Your task to perform on an android device: Search for "razer naga" on bestbuy, select the first entry, and add it to the cart. Image 0: 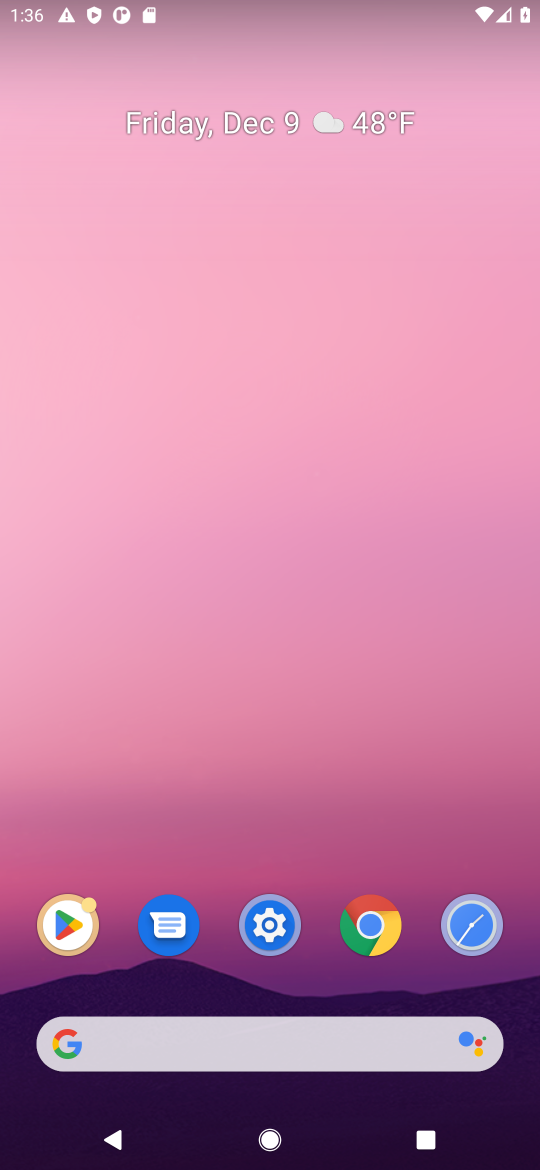
Step 0: click (347, 1030)
Your task to perform on an android device: Search for "razer naga" on bestbuy, select the first entry, and add it to the cart. Image 1: 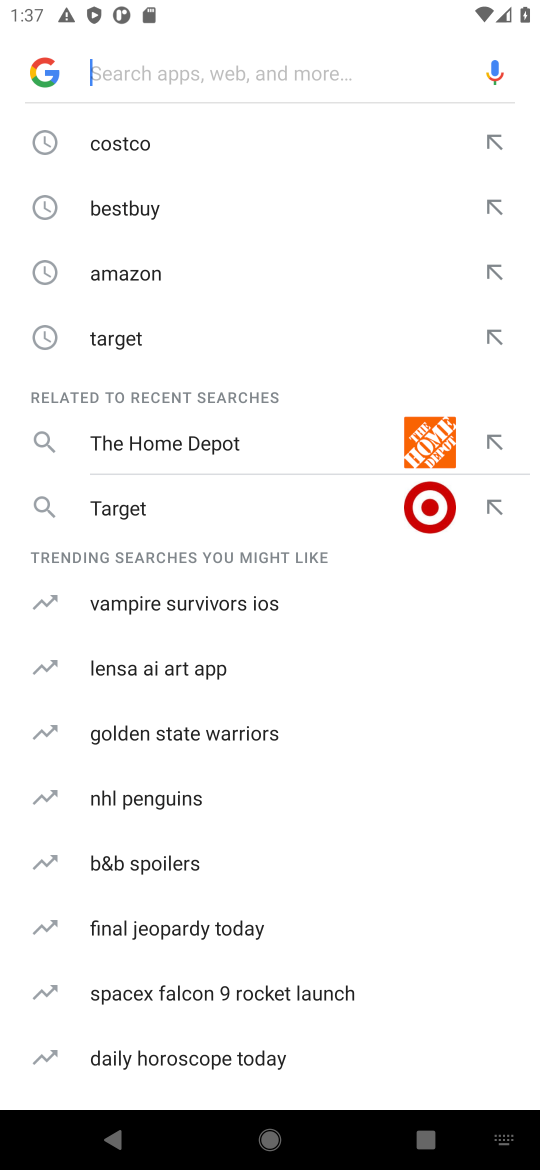
Step 1: click (191, 232)
Your task to perform on an android device: Search for "razer naga" on bestbuy, select the first entry, and add it to the cart. Image 2: 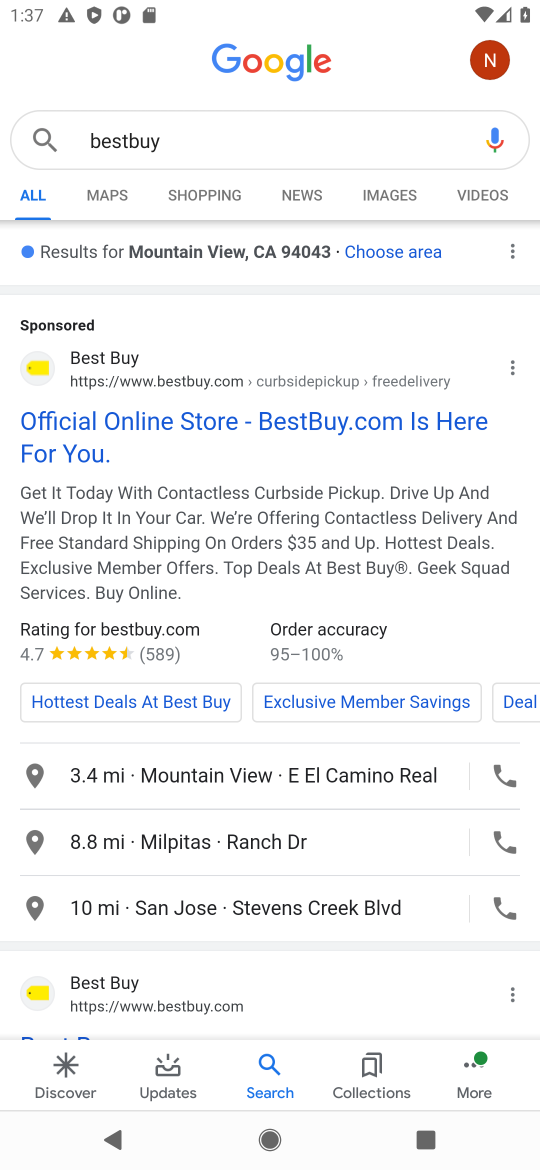
Step 2: click (173, 448)
Your task to perform on an android device: Search for "razer naga" on bestbuy, select the first entry, and add it to the cart. Image 3: 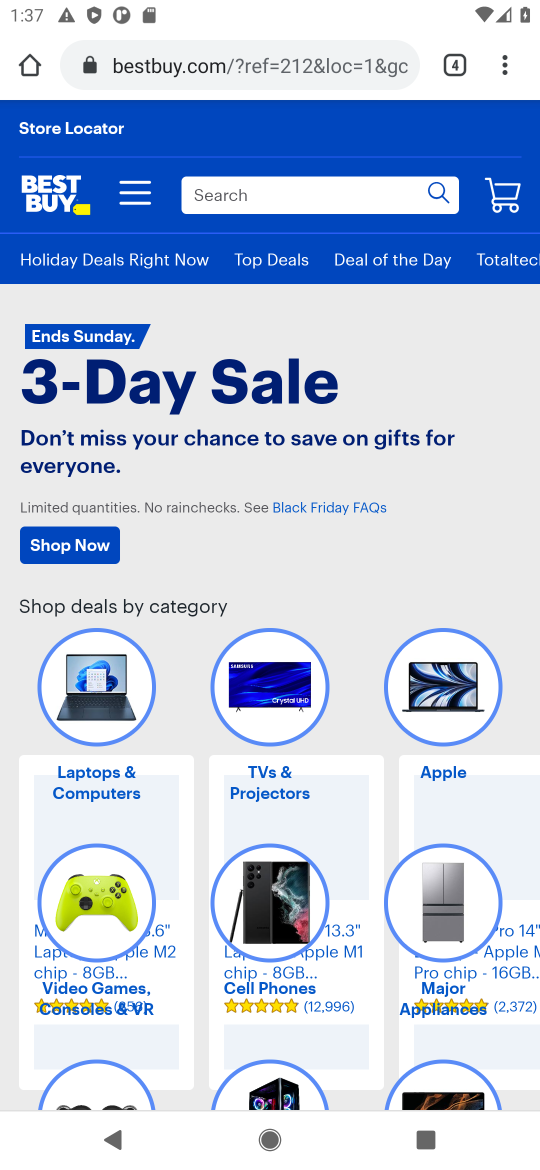
Step 3: click (251, 342)
Your task to perform on an android device: Search for "razer naga" on bestbuy, select the first entry, and add it to the cart. Image 4: 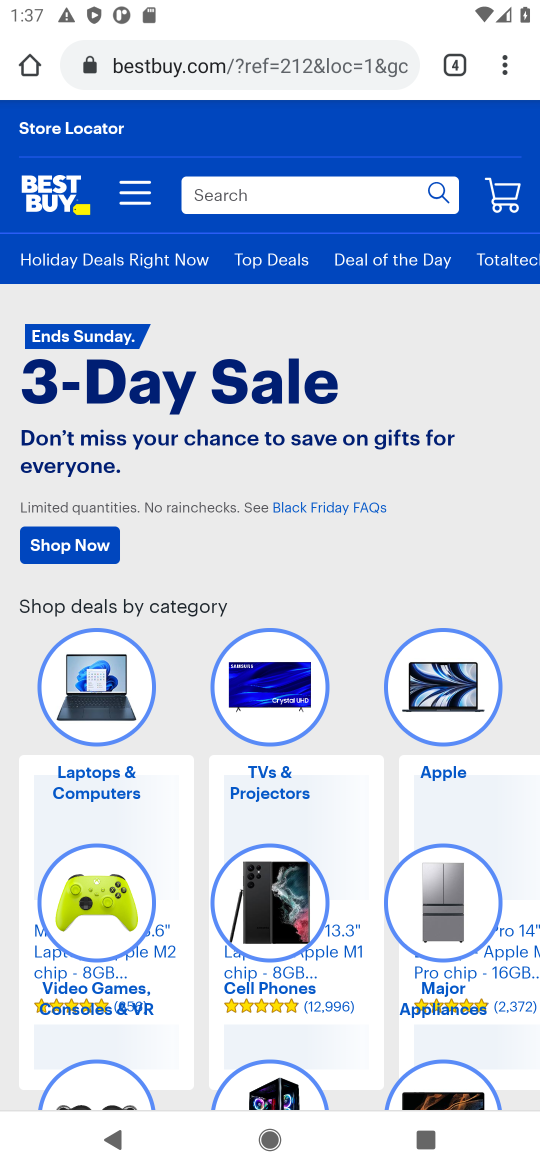
Step 4: click (281, 196)
Your task to perform on an android device: Search for "razer naga" on bestbuy, select the first entry, and add it to the cart. Image 5: 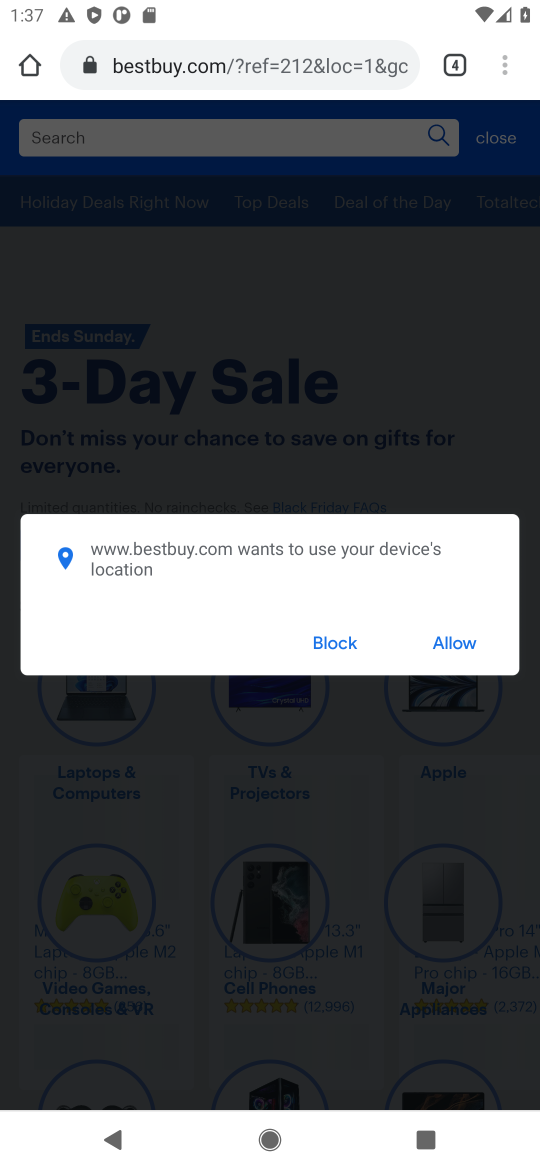
Step 5: type "razer "
Your task to perform on an android device: Search for "razer naga" on bestbuy, select the first entry, and add it to the cart. Image 6: 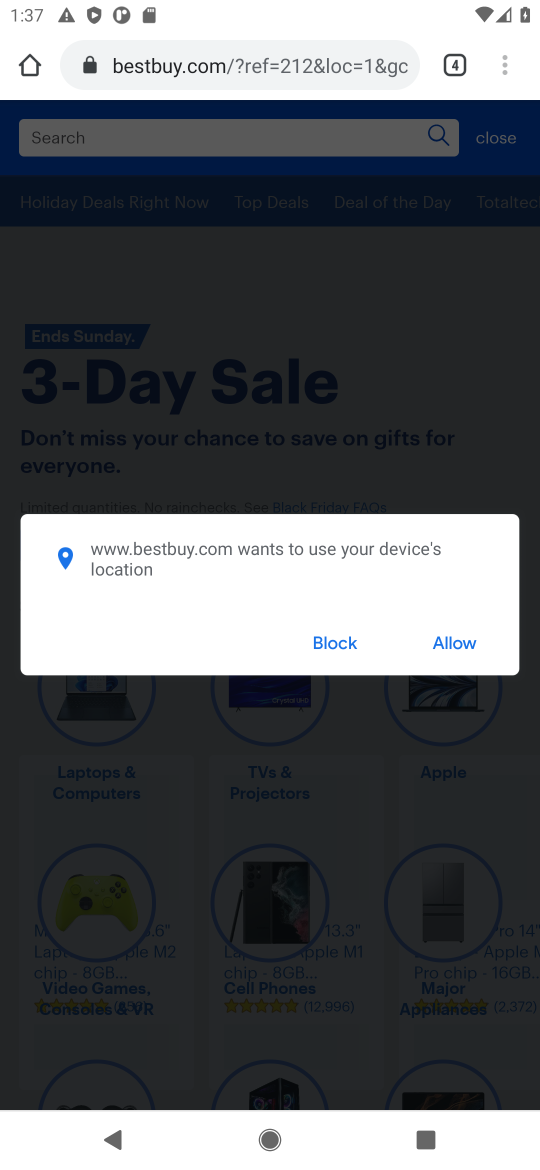
Step 6: click (428, 633)
Your task to perform on an android device: Search for "razer naga" on bestbuy, select the first entry, and add it to the cart. Image 7: 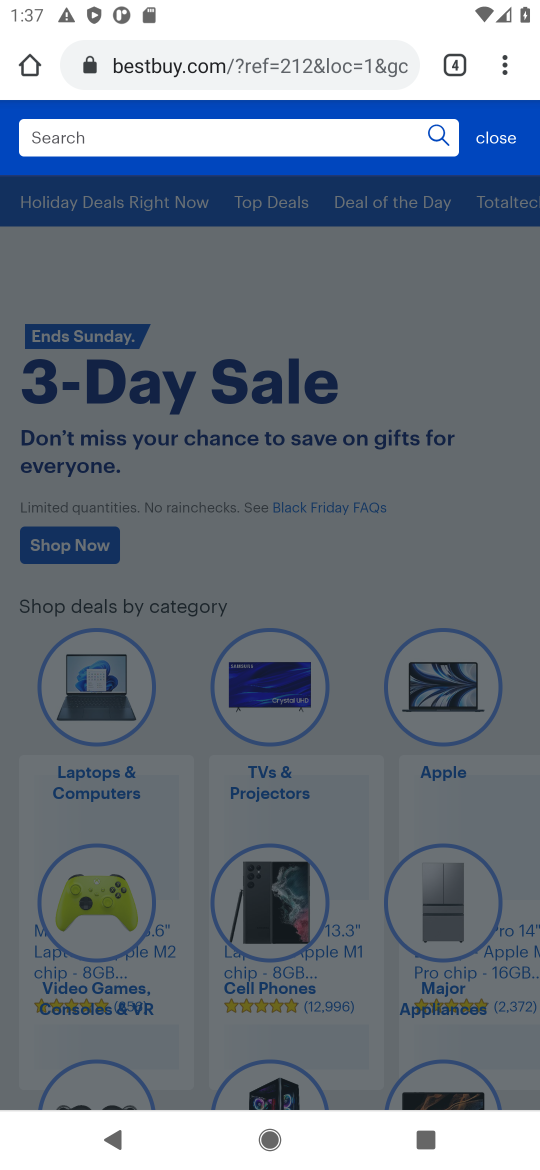
Step 7: click (167, 128)
Your task to perform on an android device: Search for "razer naga" on bestbuy, select the first entry, and add it to the cart. Image 8: 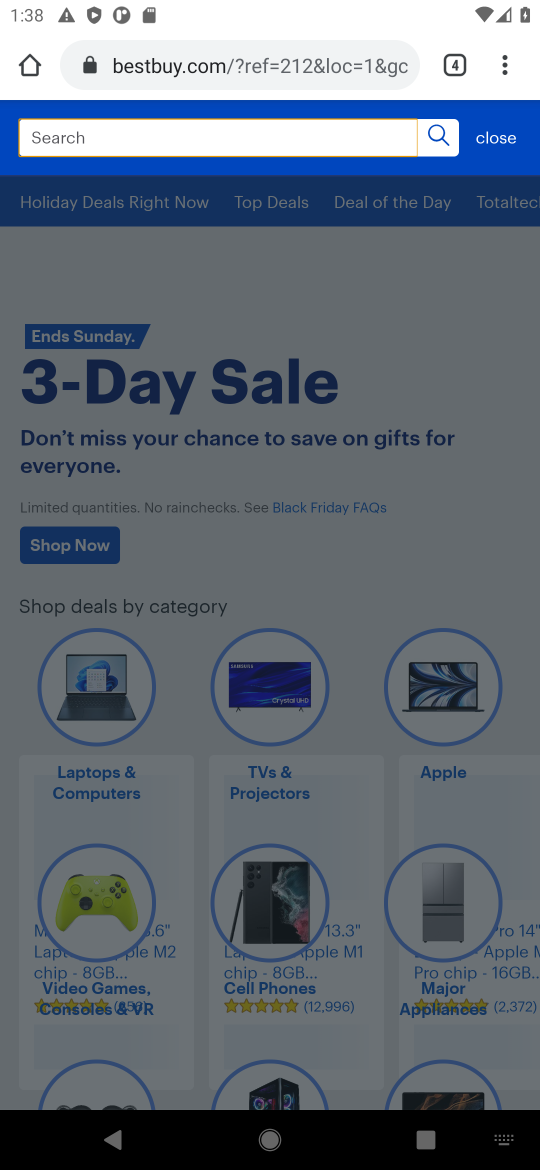
Step 8: type "razer naga"
Your task to perform on an android device: Search for "razer naga" on bestbuy, select the first entry, and add it to the cart. Image 9: 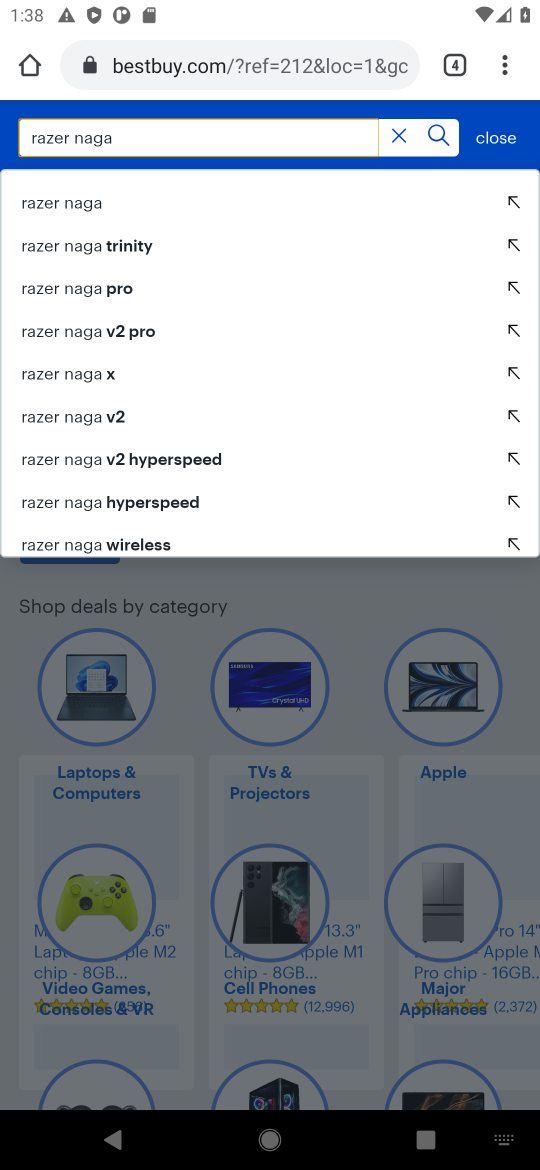
Step 9: click (442, 125)
Your task to perform on an android device: Search for "razer naga" on bestbuy, select the first entry, and add it to the cart. Image 10: 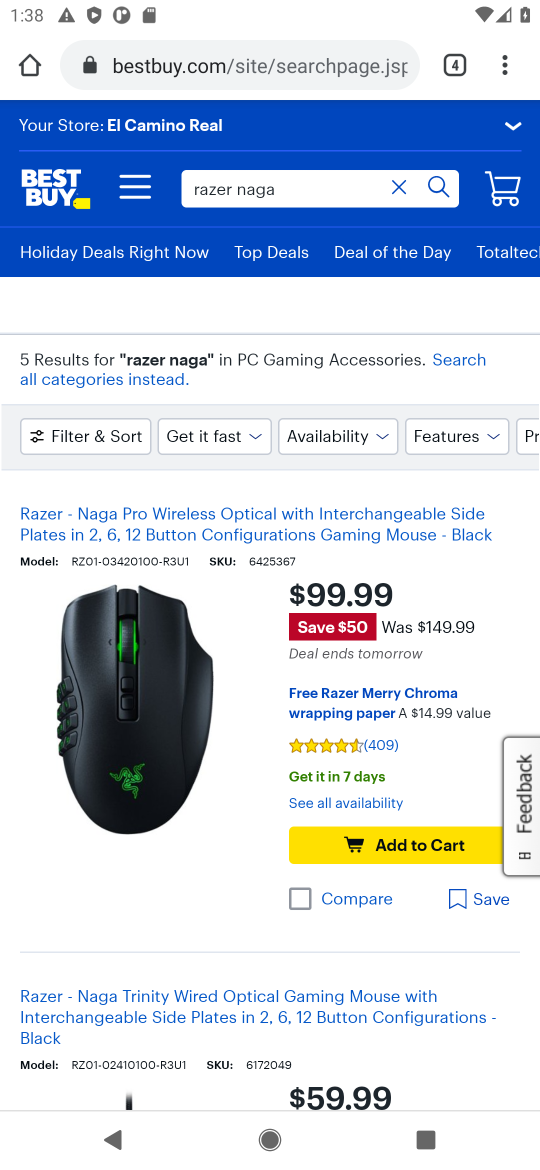
Step 10: click (390, 845)
Your task to perform on an android device: Search for "razer naga" on bestbuy, select the first entry, and add it to the cart. Image 11: 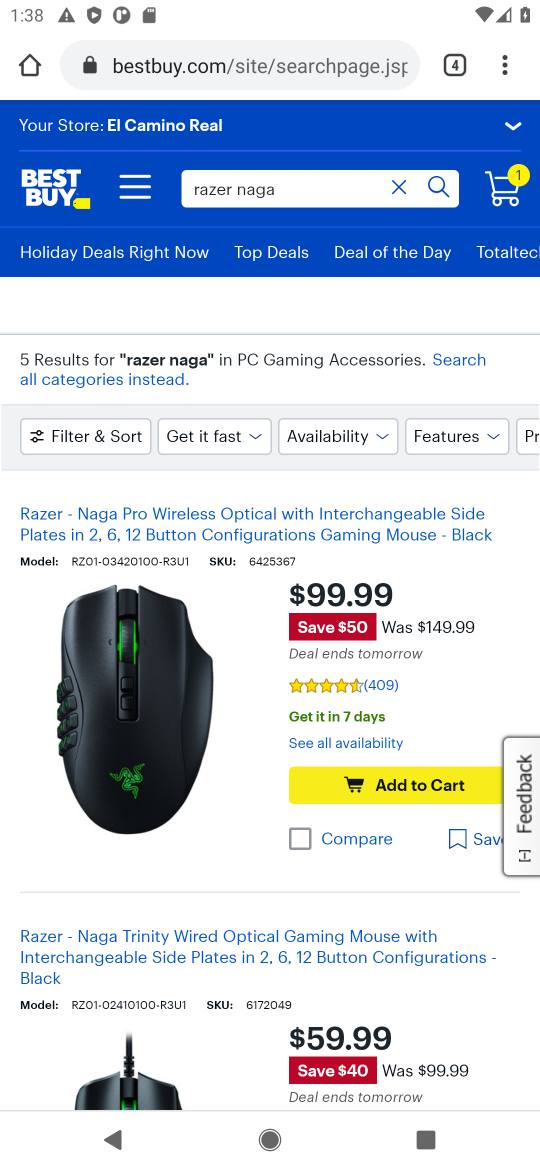
Step 11: task complete